Your task to perform on an android device: turn off location history Image 0: 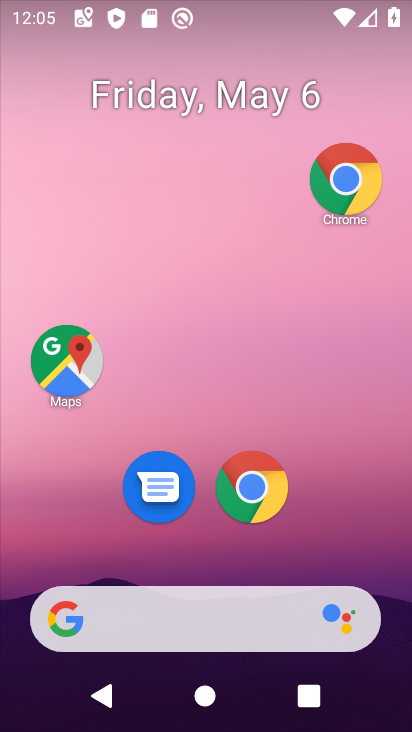
Step 0: drag from (327, 548) to (238, 224)
Your task to perform on an android device: turn off location history Image 1: 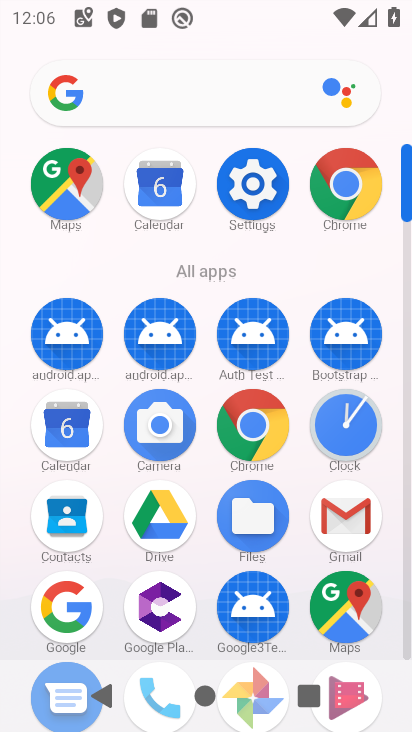
Step 1: click (248, 184)
Your task to perform on an android device: turn off location history Image 2: 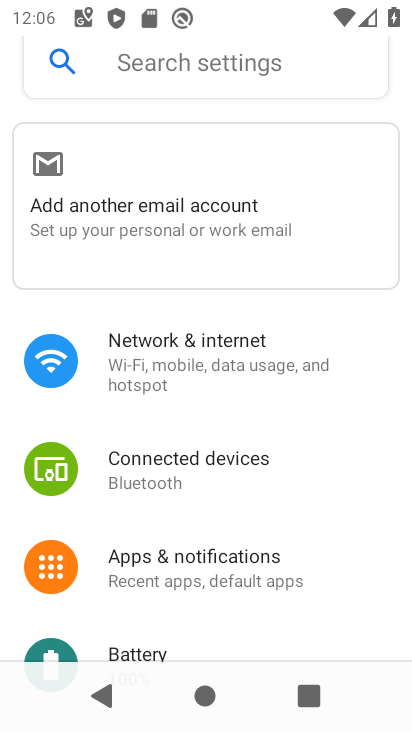
Step 2: drag from (214, 524) to (226, 357)
Your task to perform on an android device: turn off location history Image 3: 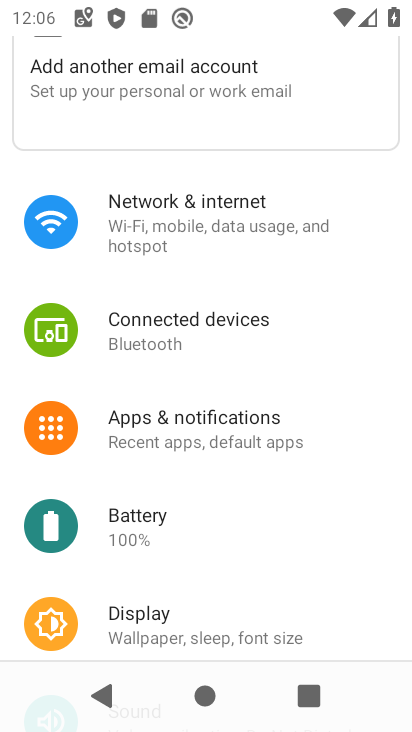
Step 3: drag from (216, 633) to (252, 474)
Your task to perform on an android device: turn off location history Image 4: 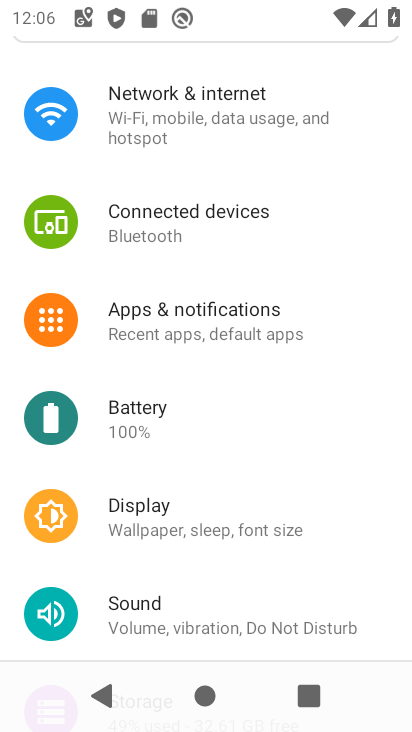
Step 4: drag from (252, 615) to (248, 489)
Your task to perform on an android device: turn off location history Image 5: 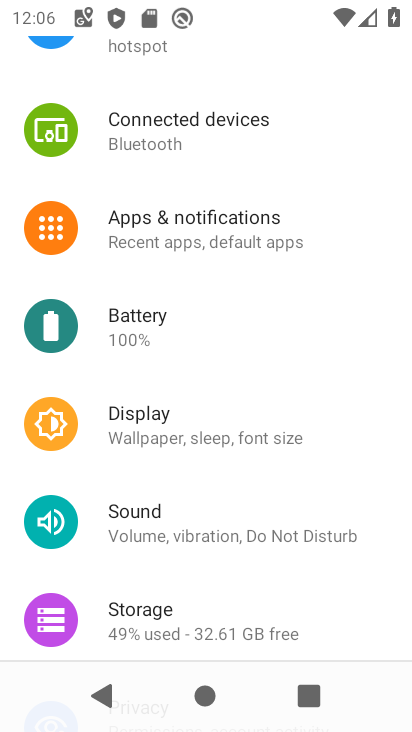
Step 5: click (248, 489)
Your task to perform on an android device: turn off location history Image 6: 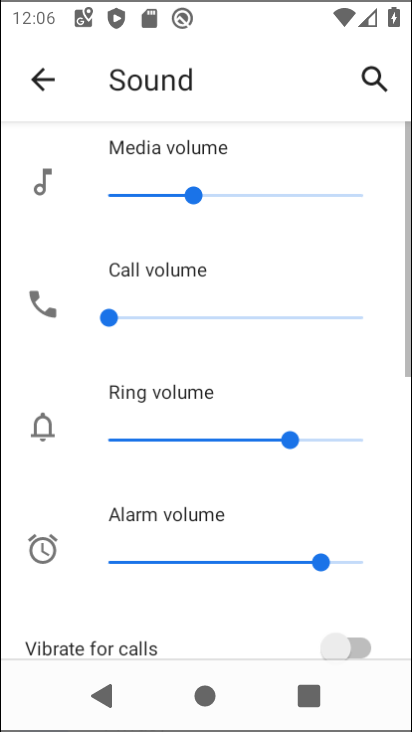
Step 6: drag from (230, 559) to (235, 433)
Your task to perform on an android device: turn off location history Image 7: 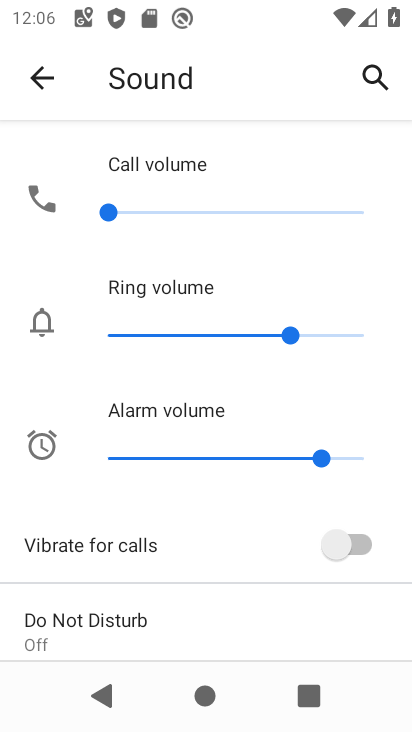
Step 7: click (39, 86)
Your task to perform on an android device: turn off location history Image 8: 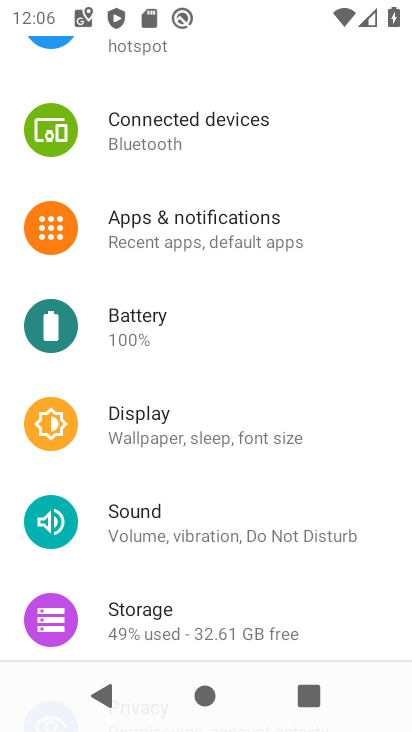
Step 8: drag from (162, 548) to (165, 315)
Your task to perform on an android device: turn off location history Image 9: 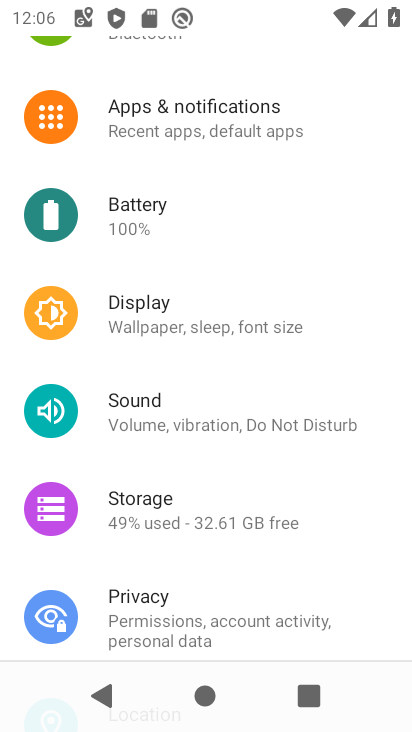
Step 9: drag from (214, 575) to (242, 295)
Your task to perform on an android device: turn off location history Image 10: 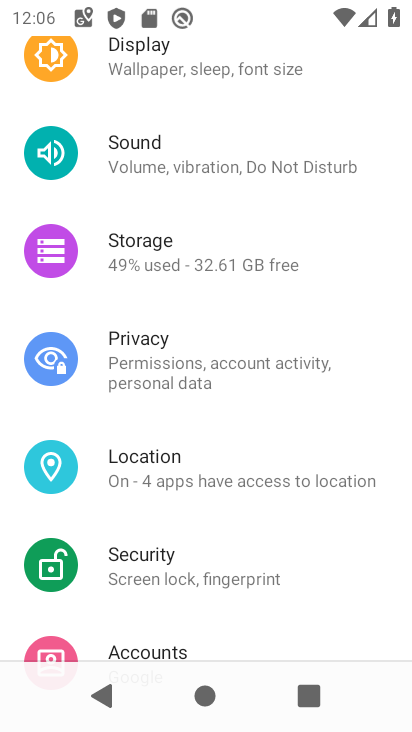
Step 10: drag from (214, 569) to (215, 510)
Your task to perform on an android device: turn off location history Image 11: 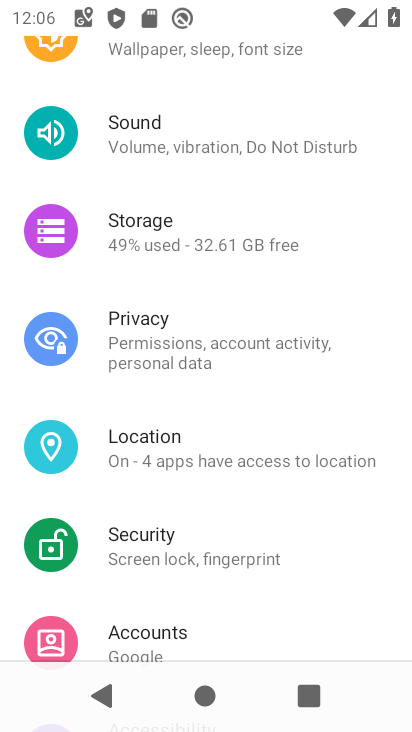
Step 11: click (231, 462)
Your task to perform on an android device: turn off location history Image 12: 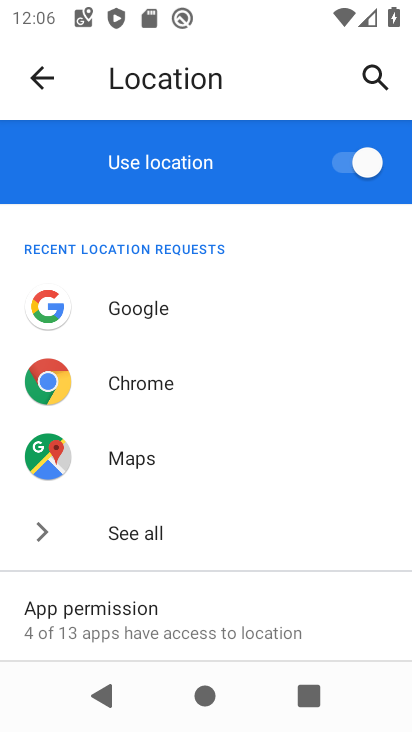
Step 12: drag from (255, 422) to (252, 262)
Your task to perform on an android device: turn off location history Image 13: 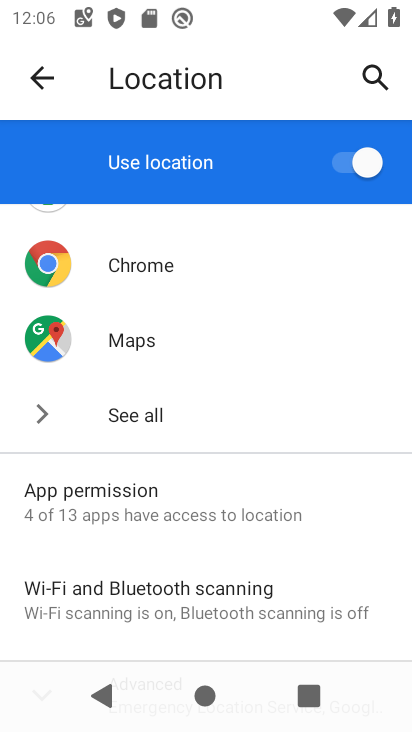
Step 13: click (208, 426)
Your task to perform on an android device: turn off location history Image 14: 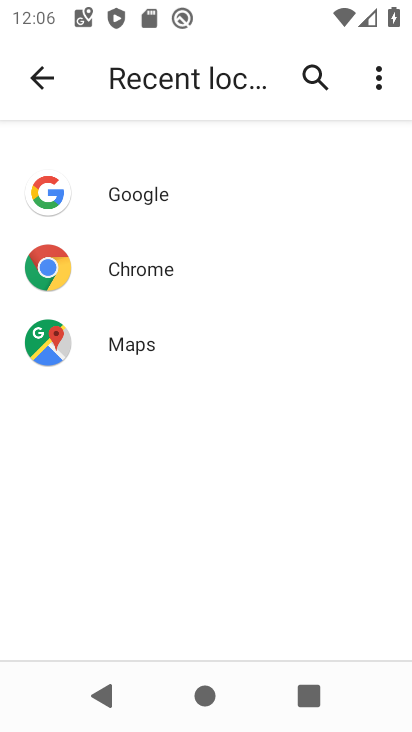
Step 14: drag from (194, 656) to (202, 499)
Your task to perform on an android device: turn off location history Image 15: 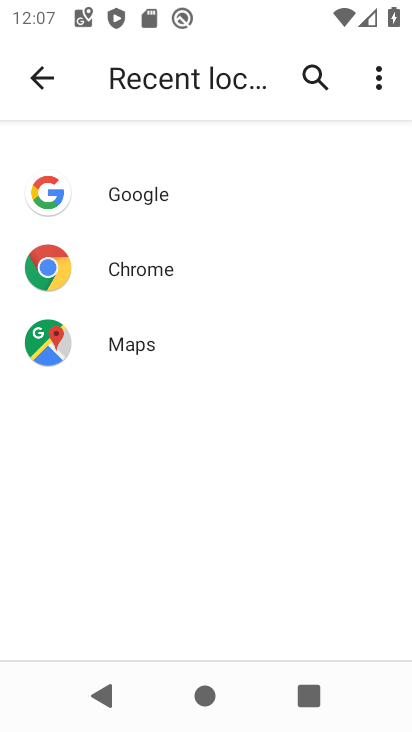
Step 15: click (101, 726)
Your task to perform on an android device: turn off location history Image 16: 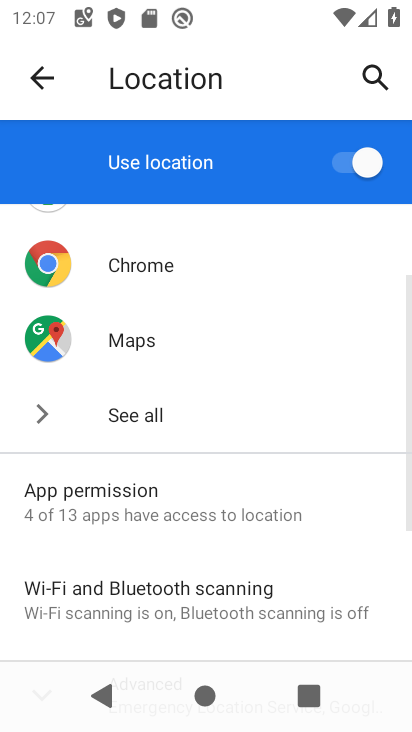
Step 16: drag from (143, 602) to (148, 412)
Your task to perform on an android device: turn off location history Image 17: 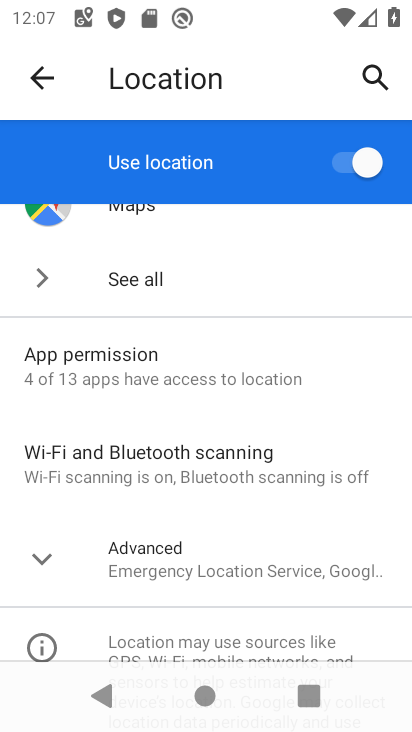
Step 17: click (236, 578)
Your task to perform on an android device: turn off location history Image 18: 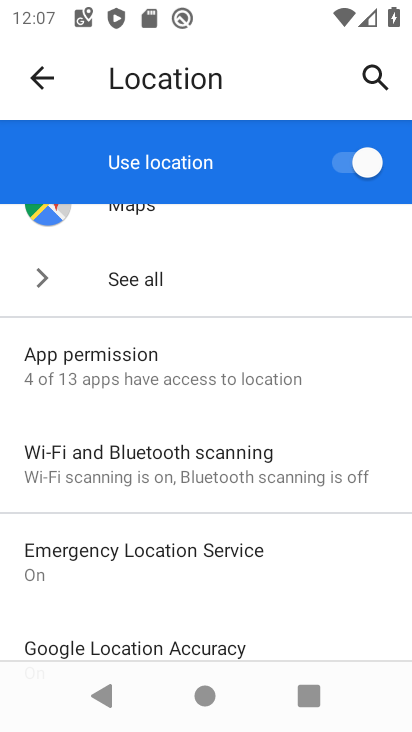
Step 18: task complete